Your task to perform on an android device: open sync settings in chrome Image 0: 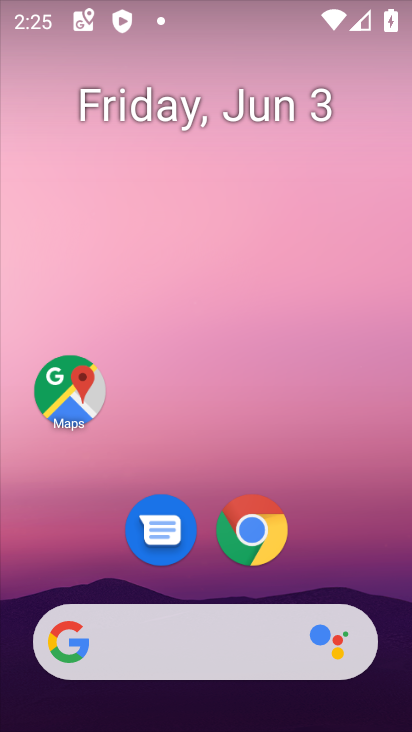
Step 0: click (243, 79)
Your task to perform on an android device: open sync settings in chrome Image 1: 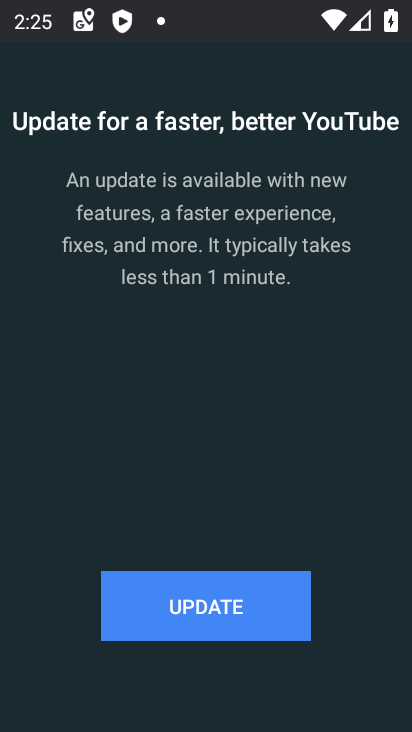
Step 1: press home button
Your task to perform on an android device: open sync settings in chrome Image 2: 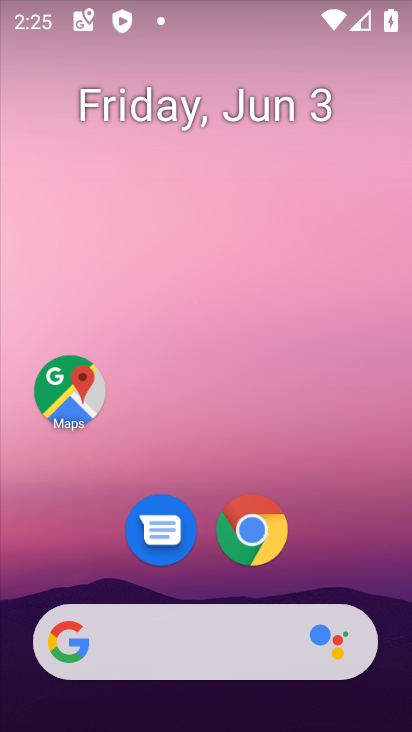
Step 2: click (251, 533)
Your task to perform on an android device: open sync settings in chrome Image 3: 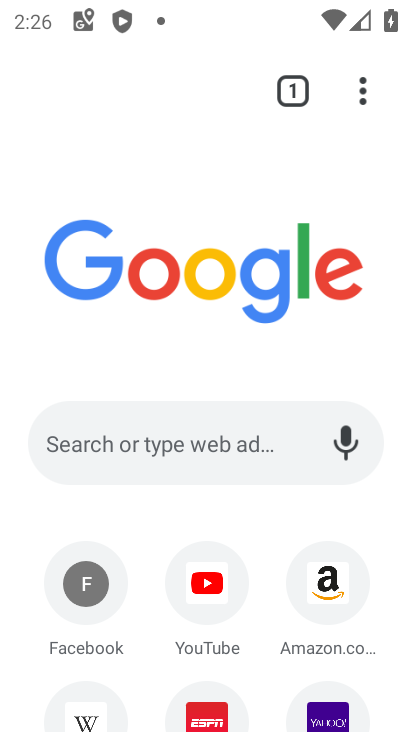
Step 3: click (361, 64)
Your task to perform on an android device: open sync settings in chrome Image 4: 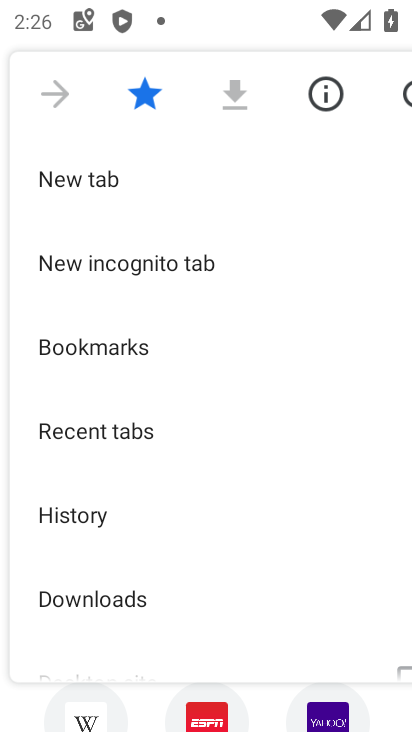
Step 4: drag from (150, 547) to (125, 141)
Your task to perform on an android device: open sync settings in chrome Image 5: 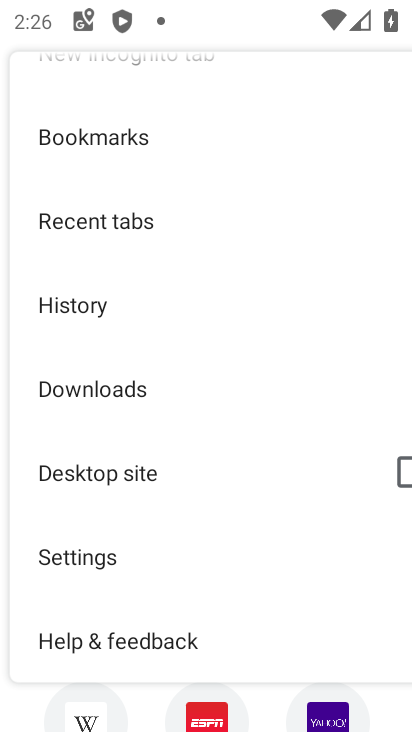
Step 5: drag from (211, 525) to (221, 285)
Your task to perform on an android device: open sync settings in chrome Image 6: 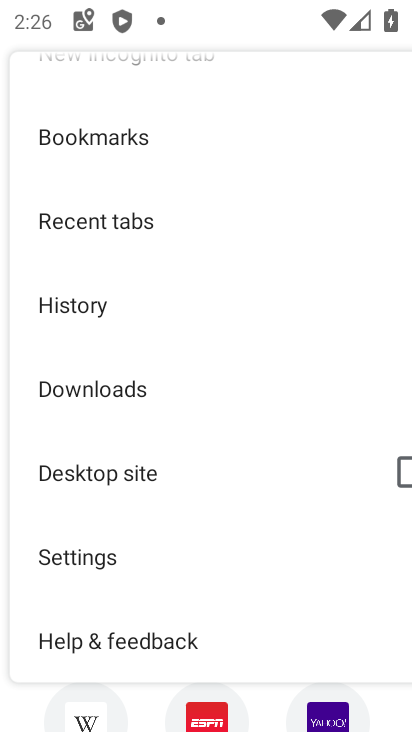
Step 6: click (86, 557)
Your task to perform on an android device: open sync settings in chrome Image 7: 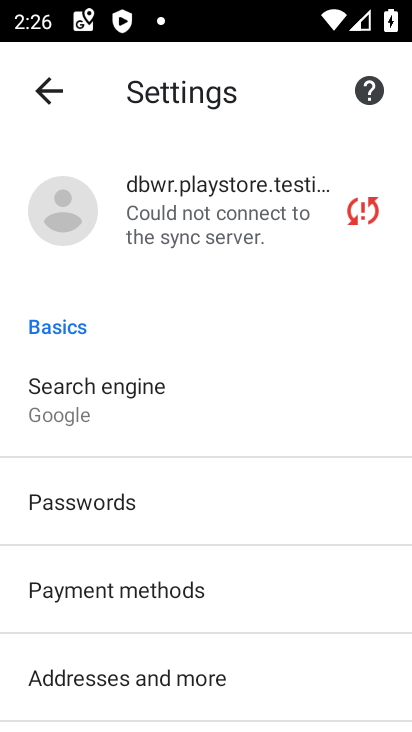
Step 7: drag from (231, 299) to (234, 625)
Your task to perform on an android device: open sync settings in chrome Image 8: 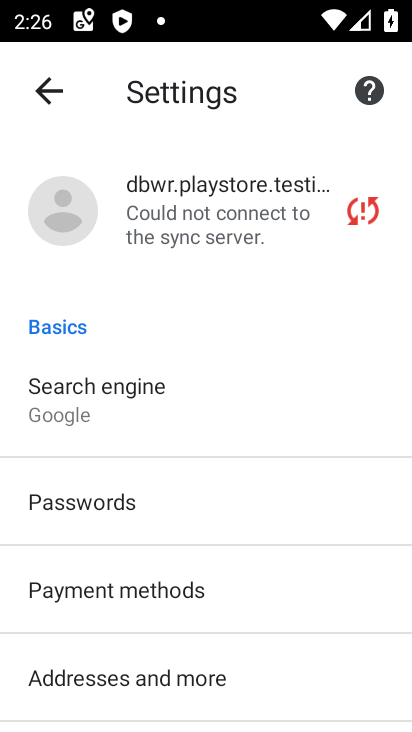
Step 8: drag from (198, 122) to (195, 526)
Your task to perform on an android device: open sync settings in chrome Image 9: 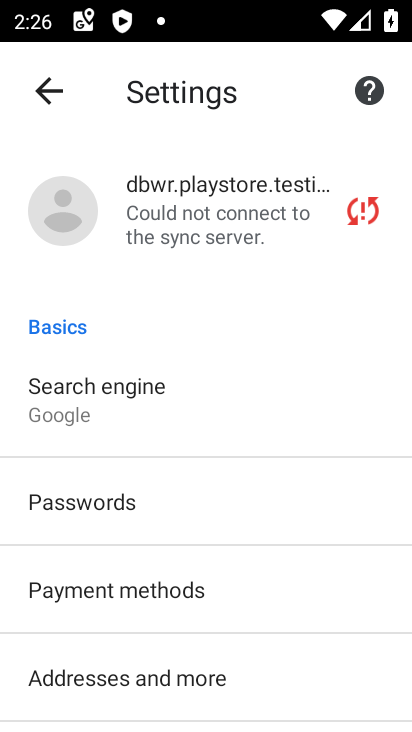
Step 9: drag from (185, 206) to (183, 551)
Your task to perform on an android device: open sync settings in chrome Image 10: 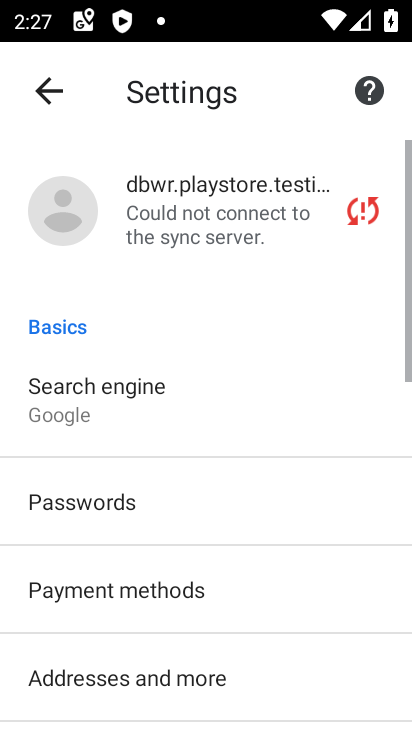
Step 10: click (160, 192)
Your task to perform on an android device: open sync settings in chrome Image 11: 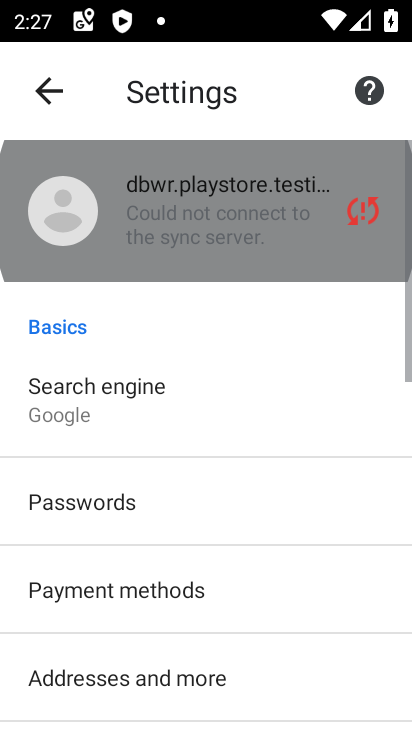
Step 11: click (192, 204)
Your task to perform on an android device: open sync settings in chrome Image 12: 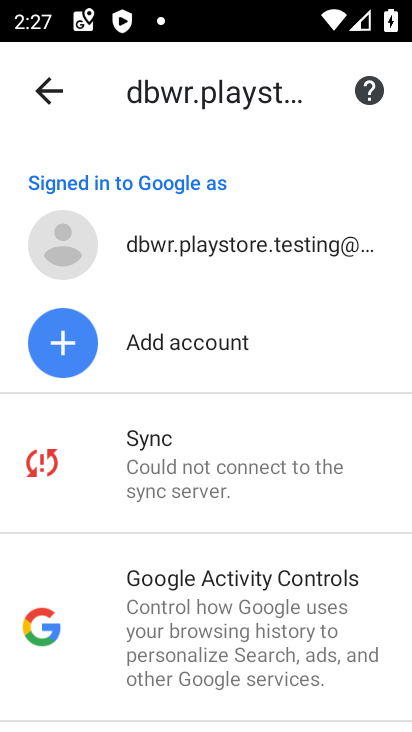
Step 12: click (149, 441)
Your task to perform on an android device: open sync settings in chrome Image 13: 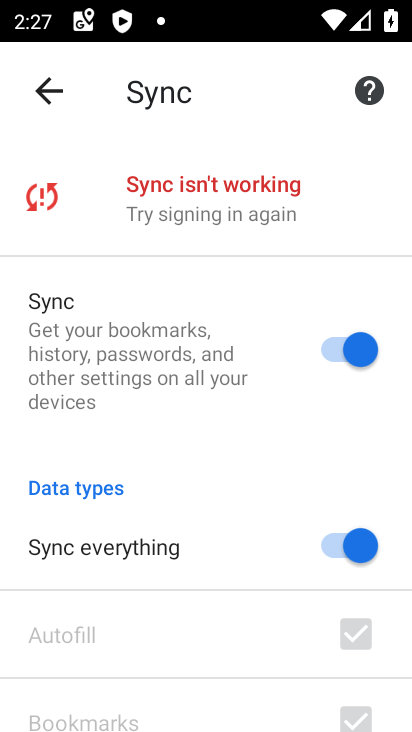
Step 13: task complete